Your task to perform on an android device: turn off wifi Image 0: 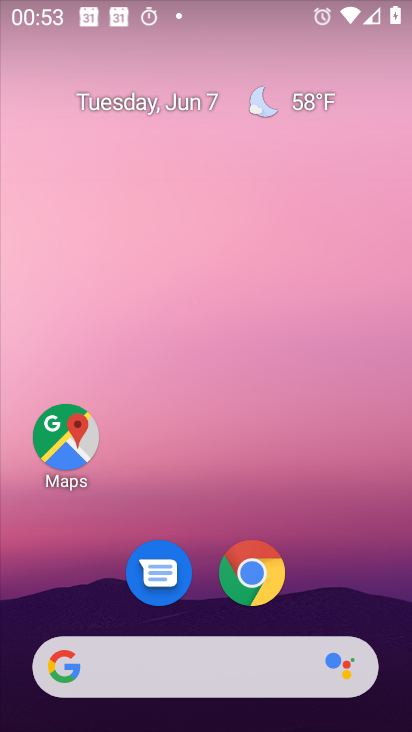
Step 0: press home button
Your task to perform on an android device: turn off wifi Image 1: 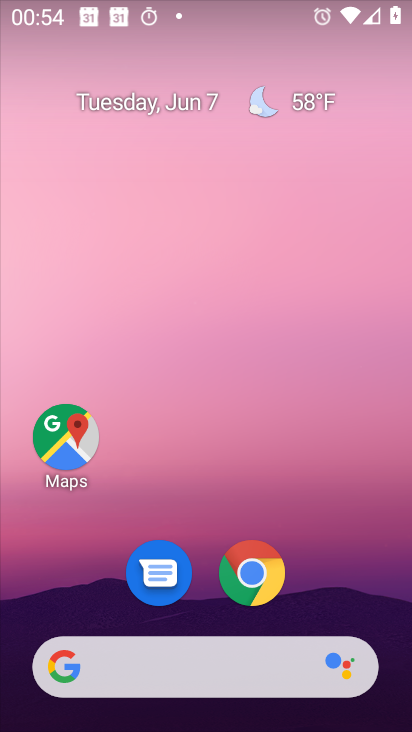
Step 1: drag from (327, 7) to (299, 396)
Your task to perform on an android device: turn off wifi Image 2: 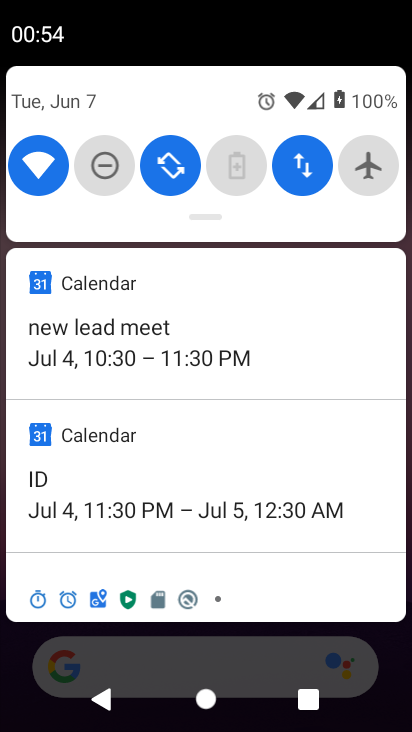
Step 2: click (24, 164)
Your task to perform on an android device: turn off wifi Image 3: 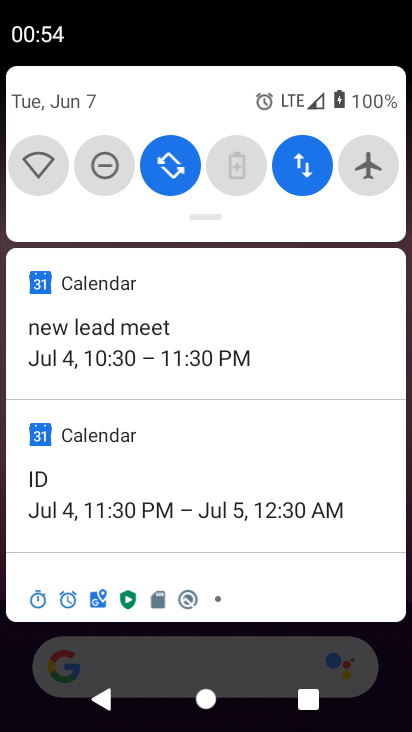
Step 3: task complete